Your task to perform on an android device: Open eBay Image 0: 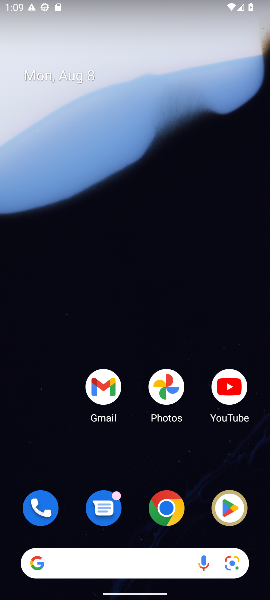
Step 0: drag from (133, 317) to (177, 92)
Your task to perform on an android device: Open eBay Image 1: 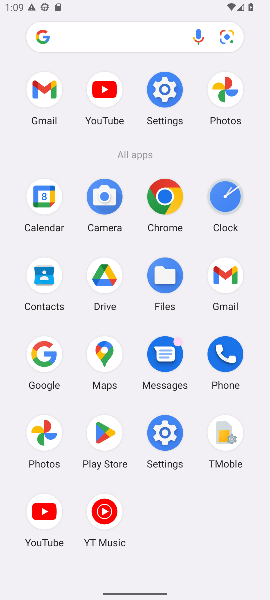
Step 1: click (159, 187)
Your task to perform on an android device: Open eBay Image 2: 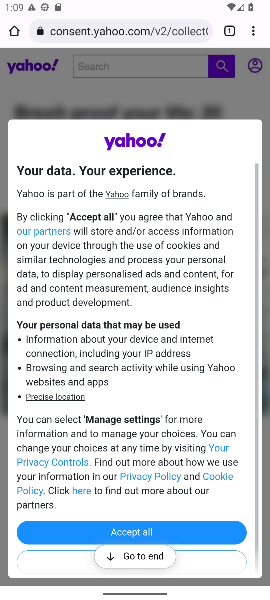
Step 2: click (108, 31)
Your task to perform on an android device: Open eBay Image 3: 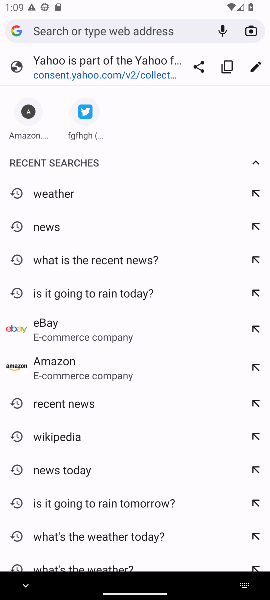
Step 3: type "www.ebay.com"
Your task to perform on an android device: Open eBay Image 4: 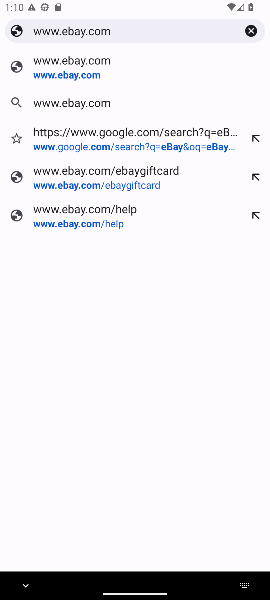
Step 4: click (63, 66)
Your task to perform on an android device: Open eBay Image 5: 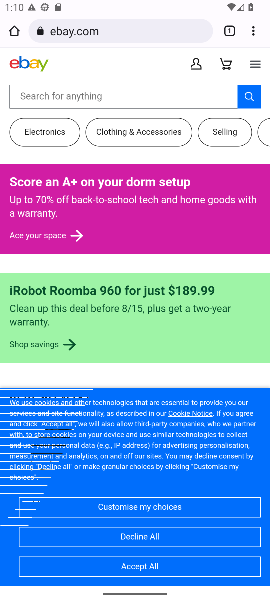
Step 5: task complete